Your task to perform on an android device: visit the assistant section in the google photos Image 0: 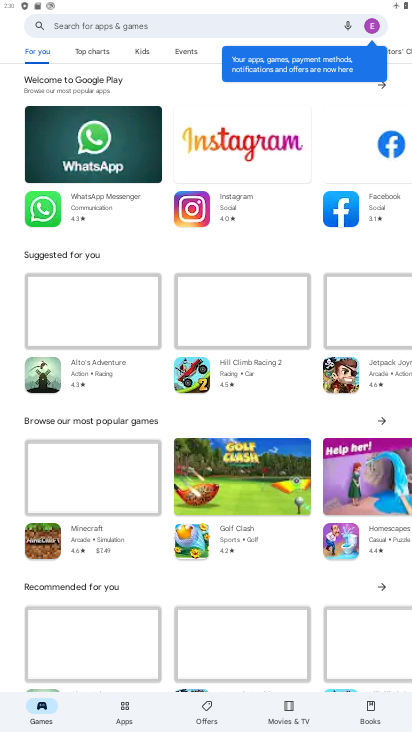
Step 0: press home button
Your task to perform on an android device: visit the assistant section in the google photos Image 1: 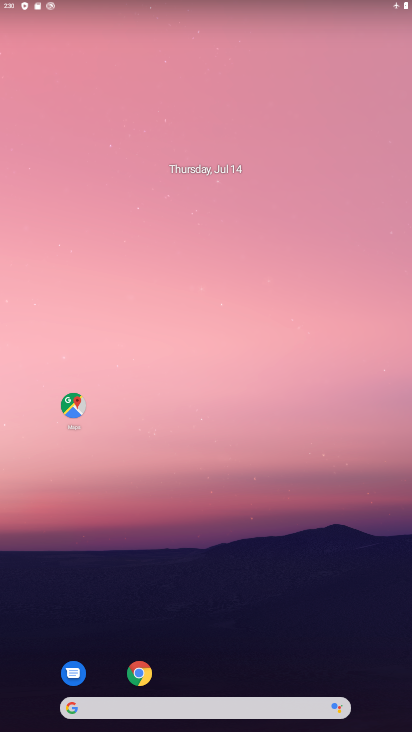
Step 1: drag from (192, 680) to (288, 191)
Your task to perform on an android device: visit the assistant section in the google photos Image 2: 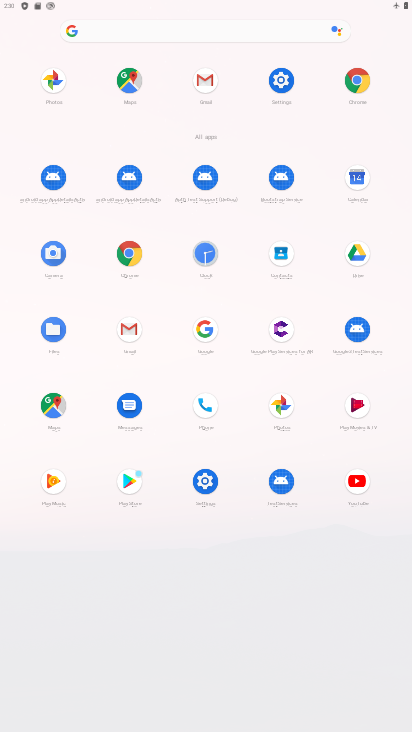
Step 2: click (278, 399)
Your task to perform on an android device: visit the assistant section in the google photos Image 3: 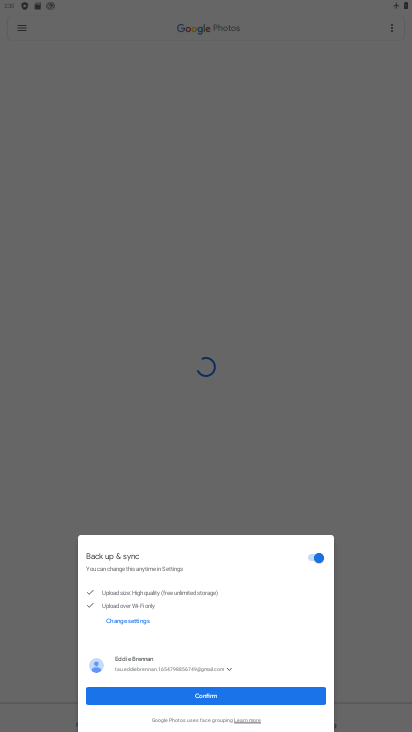
Step 3: click (197, 693)
Your task to perform on an android device: visit the assistant section in the google photos Image 4: 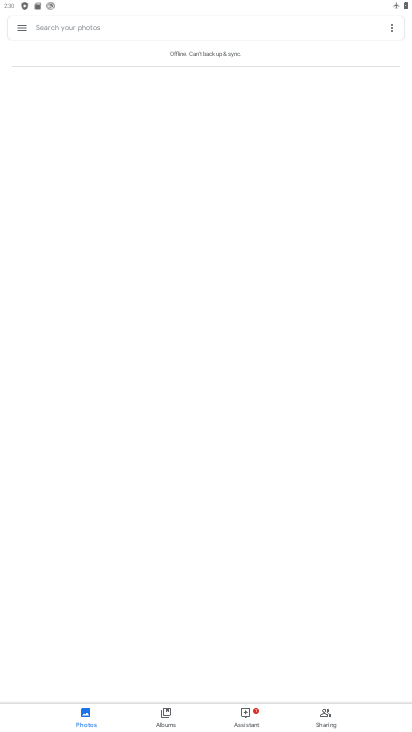
Step 4: click (227, 710)
Your task to perform on an android device: visit the assistant section in the google photos Image 5: 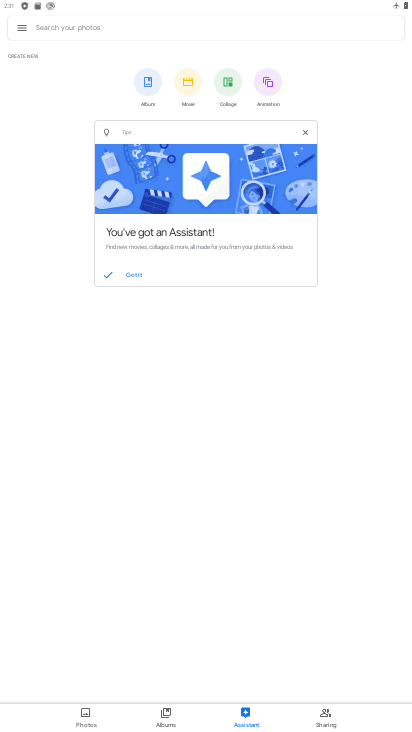
Step 5: task complete